Your task to perform on an android device: What's the weather today? Image 0: 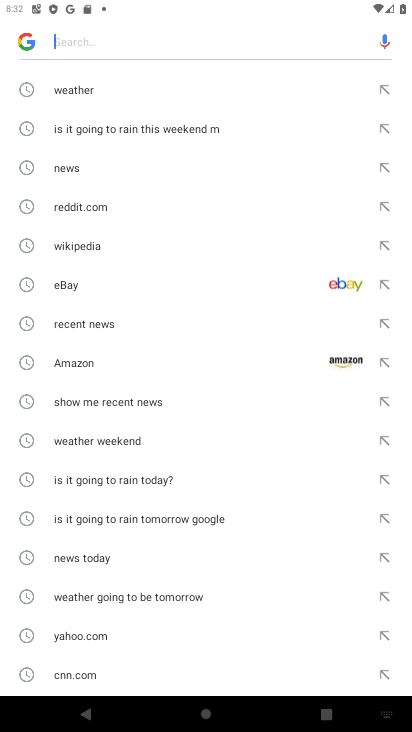
Step 0: press home button
Your task to perform on an android device: What's the weather today? Image 1: 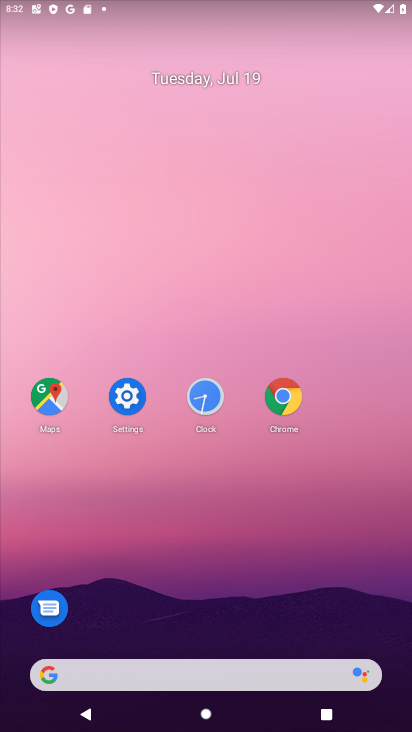
Step 1: drag from (0, 188) to (393, 204)
Your task to perform on an android device: What's the weather today? Image 2: 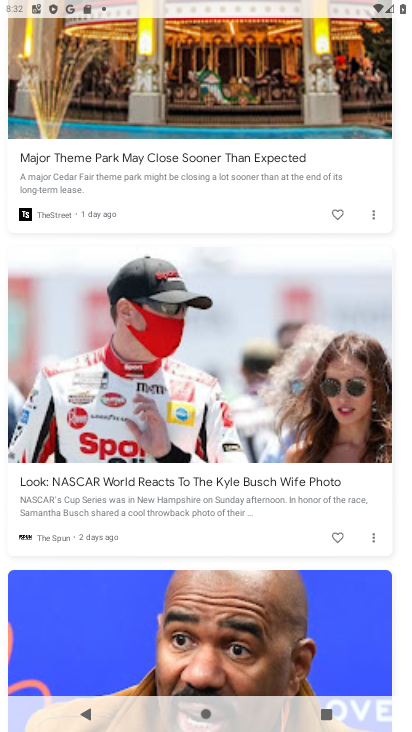
Step 2: drag from (238, 96) to (243, 588)
Your task to perform on an android device: What's the weather today? Image 3: 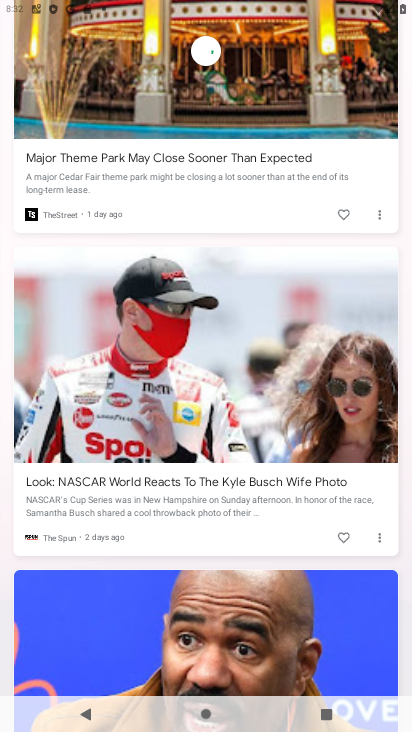
Step 3: drag from (281, 97) to (273, 506)
Your task to perform on an android device: What's the weather today? Image 4: 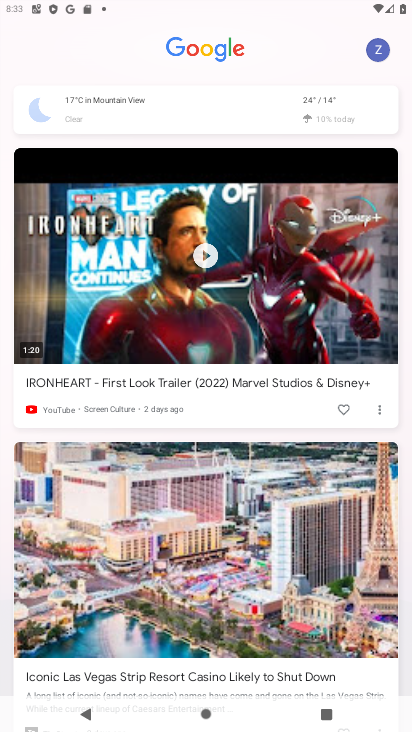
Step 4: click (323, 104)
Your task to perform on an android device: What's the weather today? Image 5: 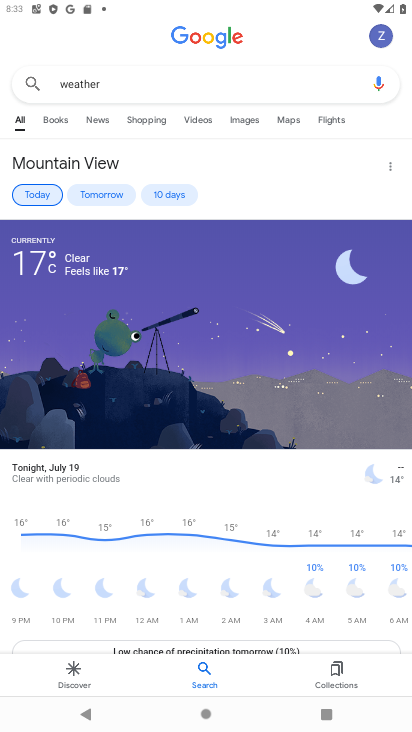
Step 5: task complete